Your task to perform on an android device: turn on notifications settings in the gmail app Image 0: 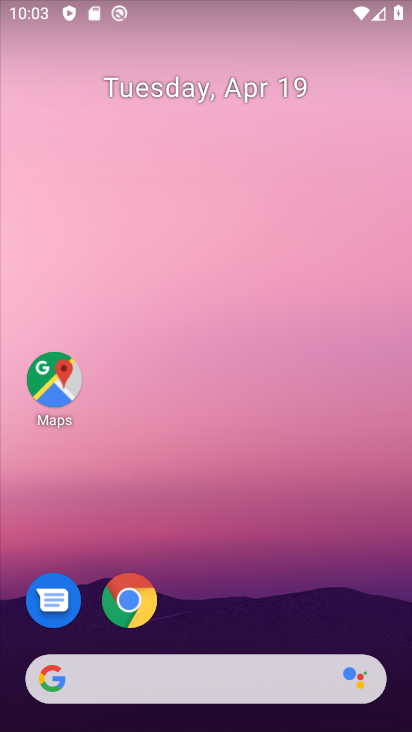
Step 0: drag from (347, 597) to (340, 3)
Your task to perform on an android device: turn on notifications settings in the gmail app Image 1: 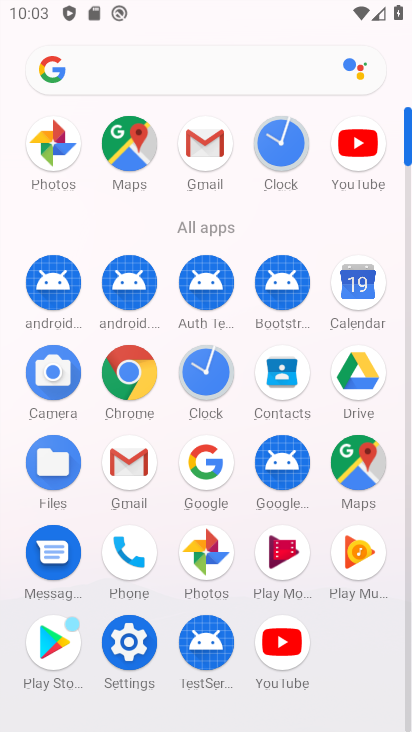
Step 1: click (142, 459)
Your task to perform on an android device: turn on notifications settings in the gmail app Image 2: 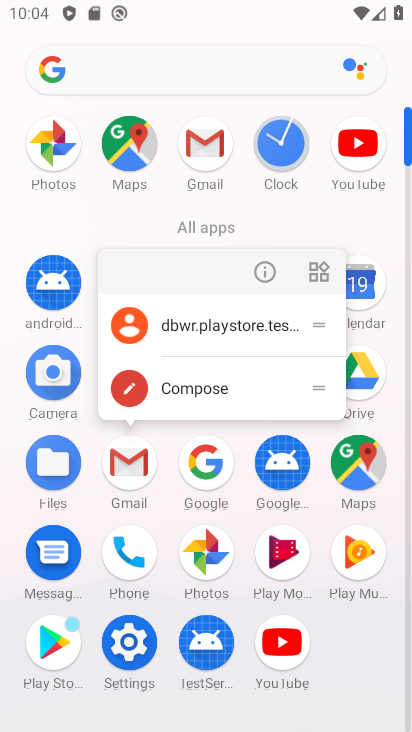
Step 2: click (131, 465)
Your task to perform on an android device: turn on notifications settings in the gmail app Image 3: 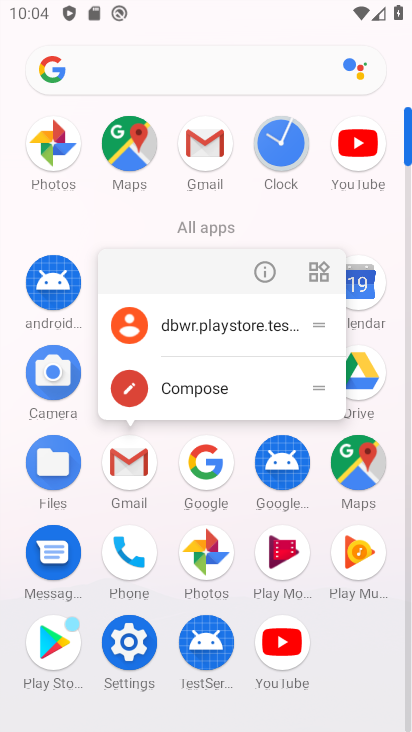
Step 3: click (131, 465)
Your task to perform on an android device: turn on notifications settings in the gmail app Image 4: 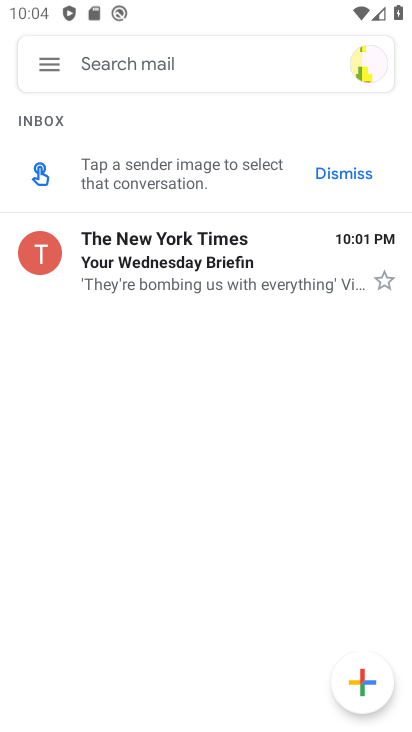
Step 4: click (39, 63)
Your task to perform on an android device: turn on notifications settings in the gmail app Image 5: 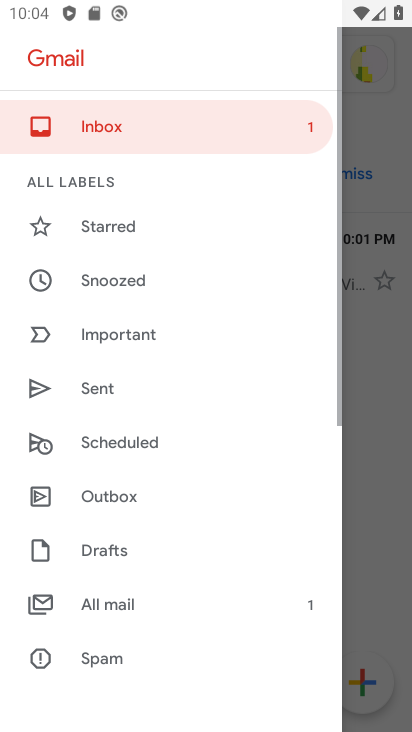
Step 5: drag from (198, 578) to (214, 297)
Your task to perform on an android device: turn on notifications settings in the gmail app Image 6: 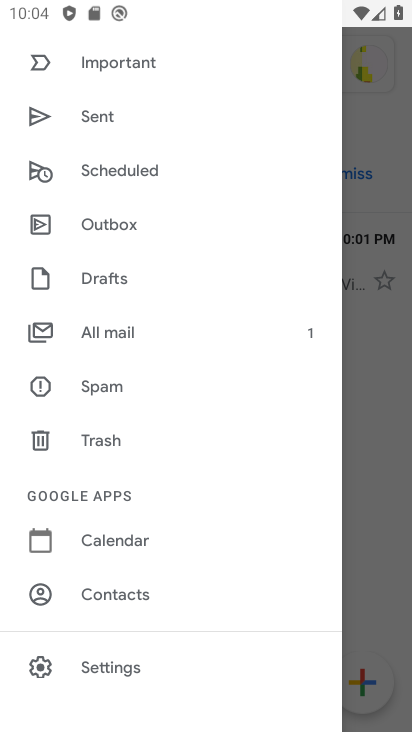
Step 6: drag from (169, 594) to (190, 496)
Your task to perform on an android device: turn on notifications settings in the gmail app Image 7: 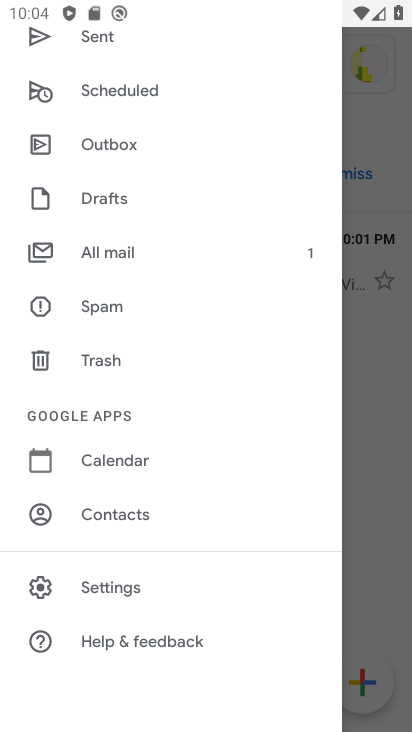
Step 7: click (172, 579)
Your task to perform on an android device: turn on notifications settings in the gmail app Image 8: 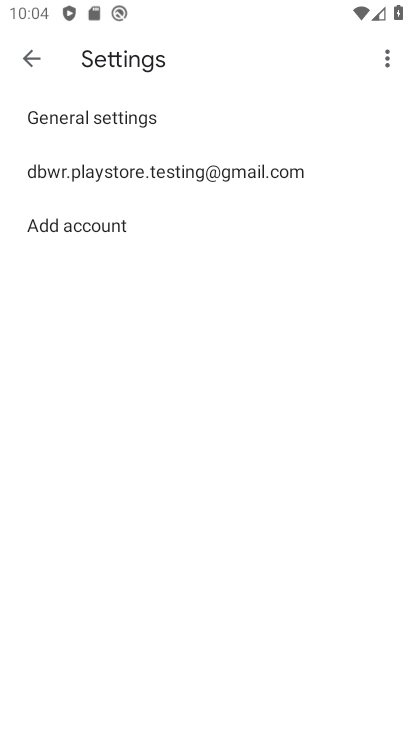
Step 8: click (81, 170)
Your task to perform on an android device: turn on notifications settings in the gmail app Image 9: 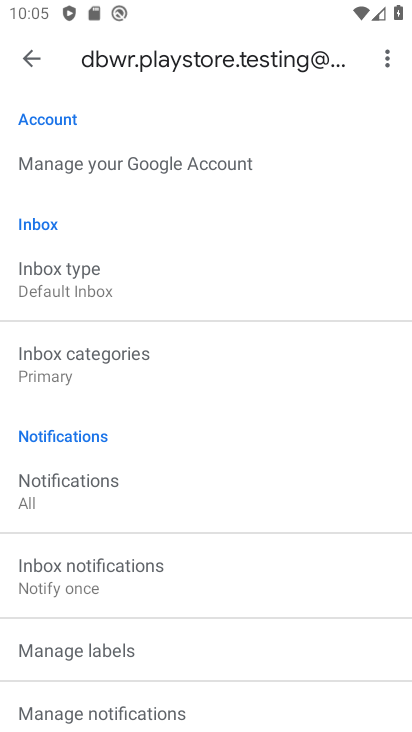
Step 9: click (171, 712)
Your task to perform on an android device: turn on notifications settings in the gmail app Image 10: 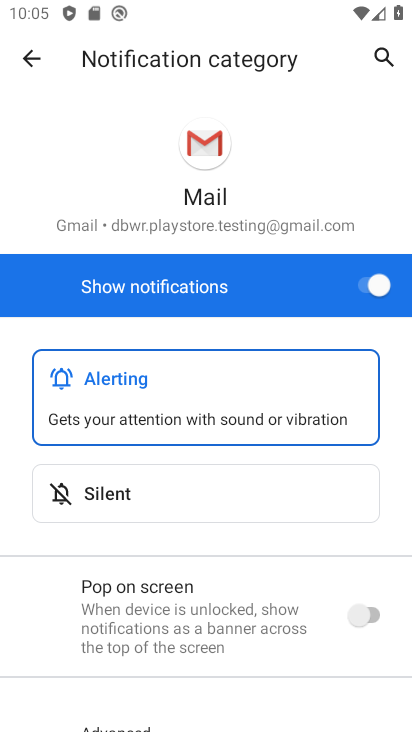
Step 10: task complete